Your task to perform on an android device: Open settings on Google Maps Image 0: 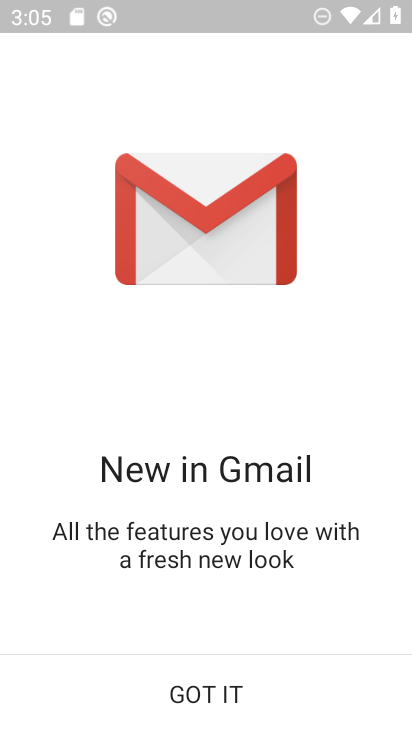
Step 0: press home button
Your task to perform on an android device: Open settings on Google Maps Image 1: 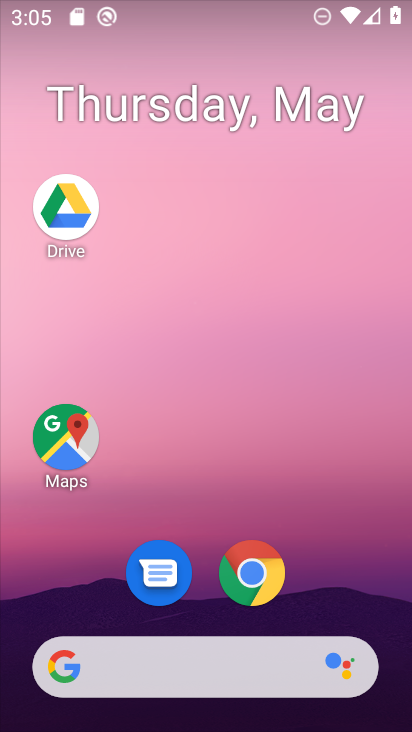
Step 1: drag from (281, 507) to (129, 79)
Your task to perform on an android device: Open settings on Google Maps Image 2: 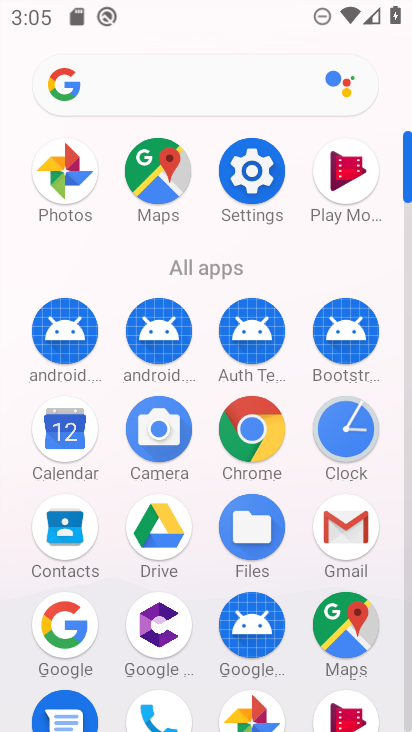
Step 2: click (154, 173)
Your task to perform on an android device: Open settings on Google Maps Image 3: 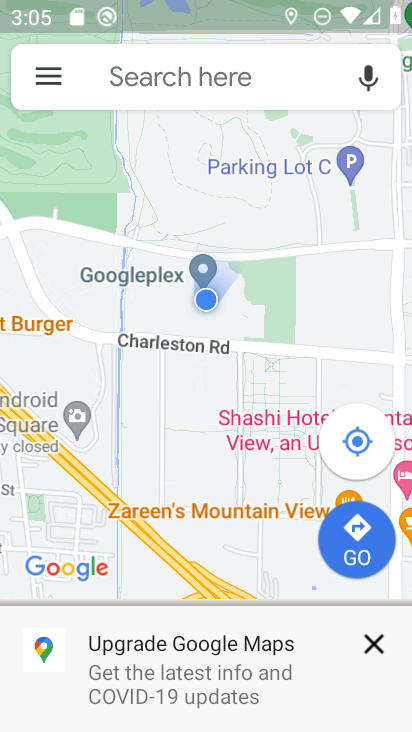
Step 3: click (53, 78)
Your task to perform on an android device: Open settings on Google Maps Image 4: 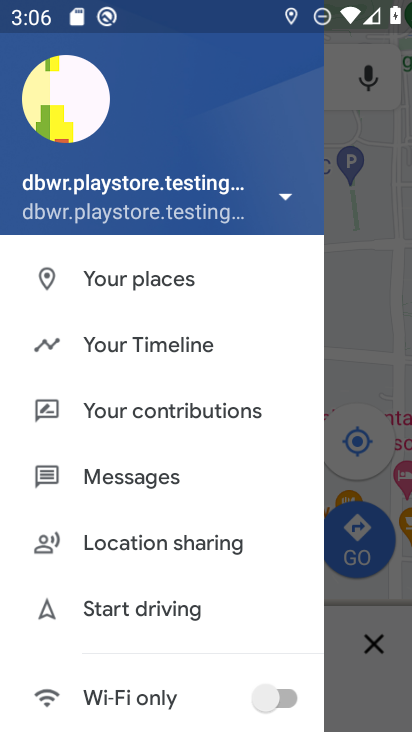
Step 4: drag from (144, 631) to (128, 305)
Your task to perform on an android device: Open settings on Google Maps Image 5: 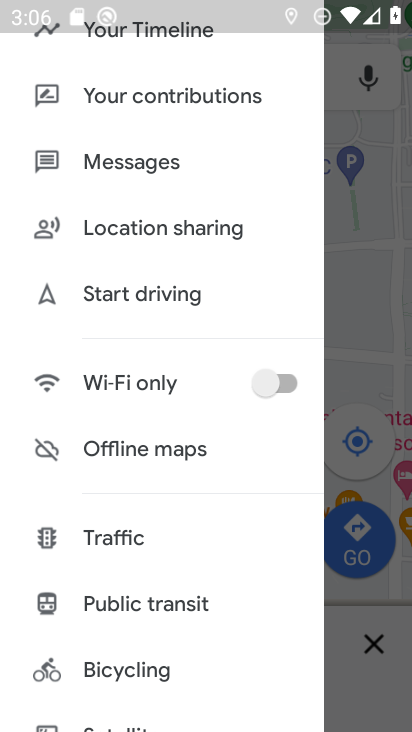
Step 5: drag from (145, 622) to (92, 342)
Your task to perform on an android device: Open settings on Google Maps Image 6: 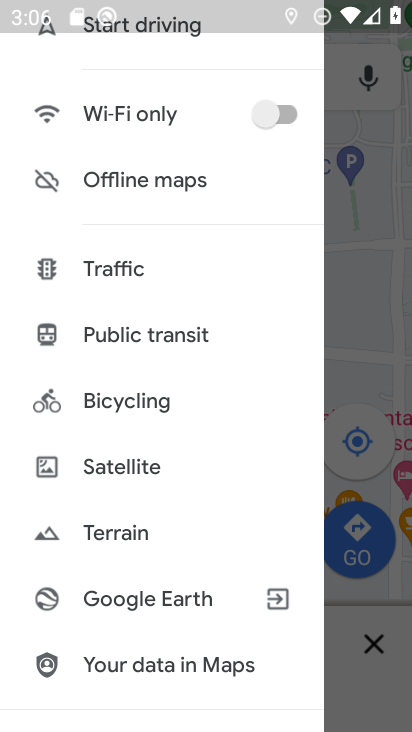
Step 6: drag from (151, 486) to (118, 231)
Your task to perform on an android device: Open settings on Google Maps Image 7: 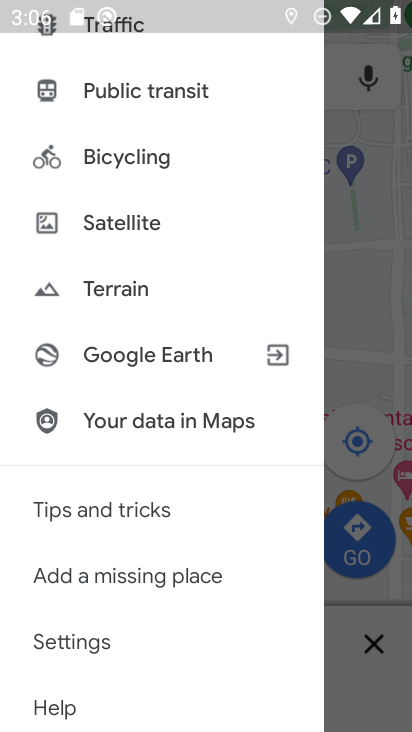
Step 7: click (98, 637)
Your task to perform on an android device: Open settings on Google Maps Image 8: 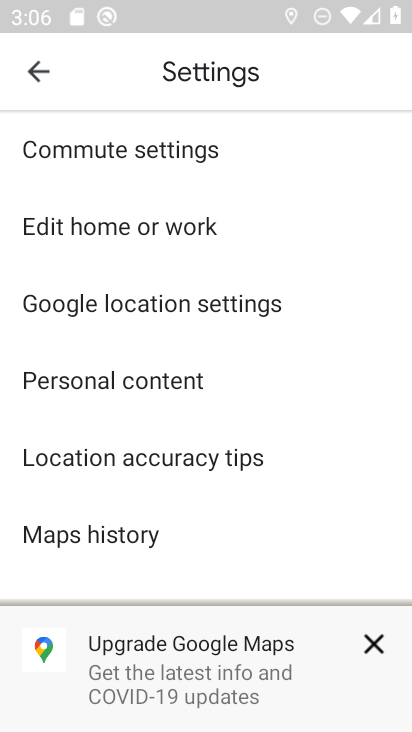
Step 8: task complete